Your task to perform on an android device: Open privacy settings Image 0: 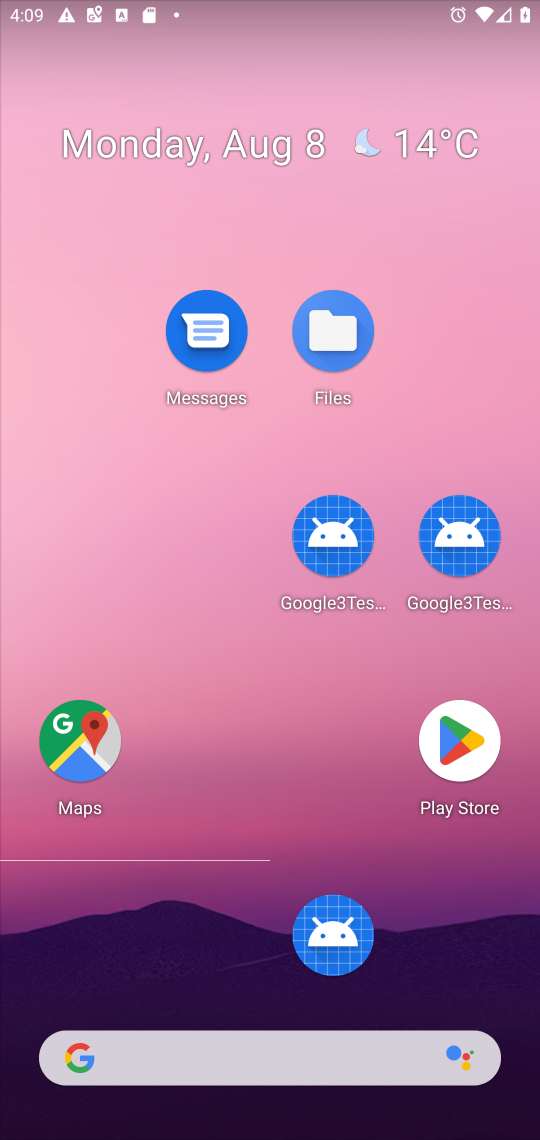
Step 0: drag from (347, 1036) to (426, 201)
Your task to perform on an android device: Open privacy settings Image 1: 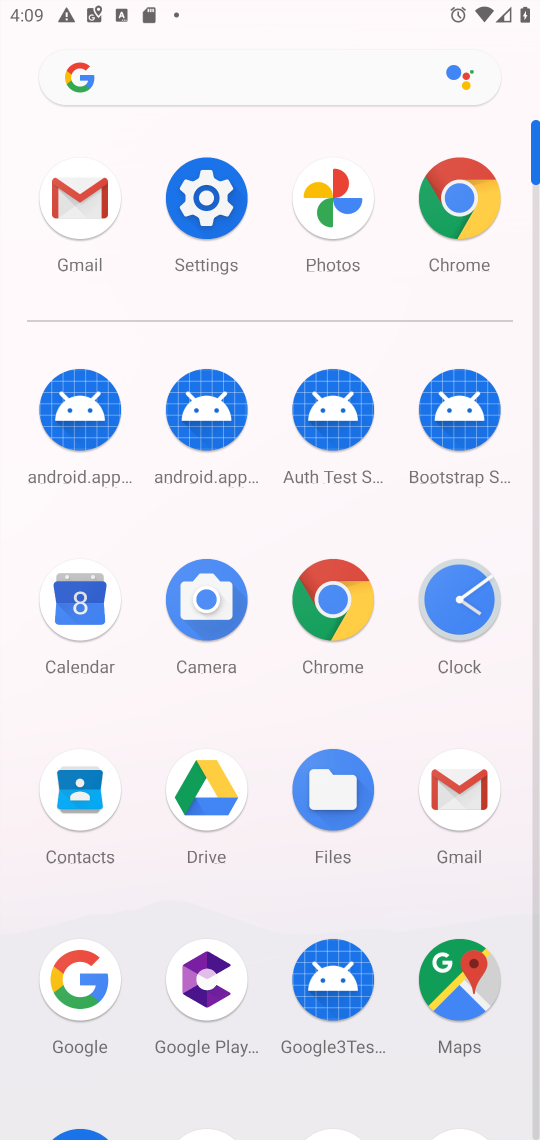
Step 1: click (207, 194)
Your task to perform on an android device: Open privacy settings Image 2: 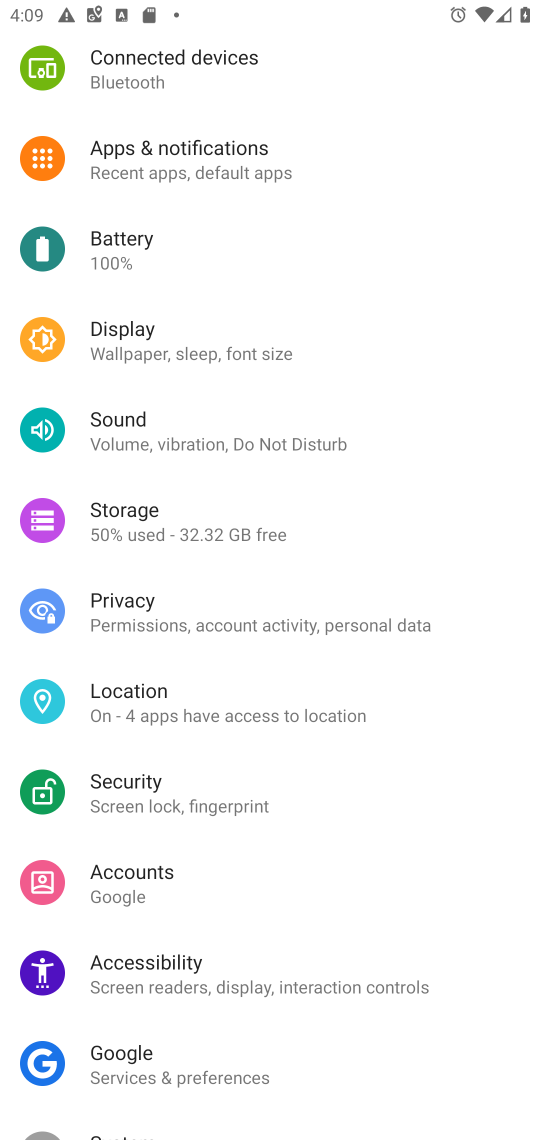
Step 2: click (180, 604)
Your task to perform on an android device: Open privacy settings Image 3: 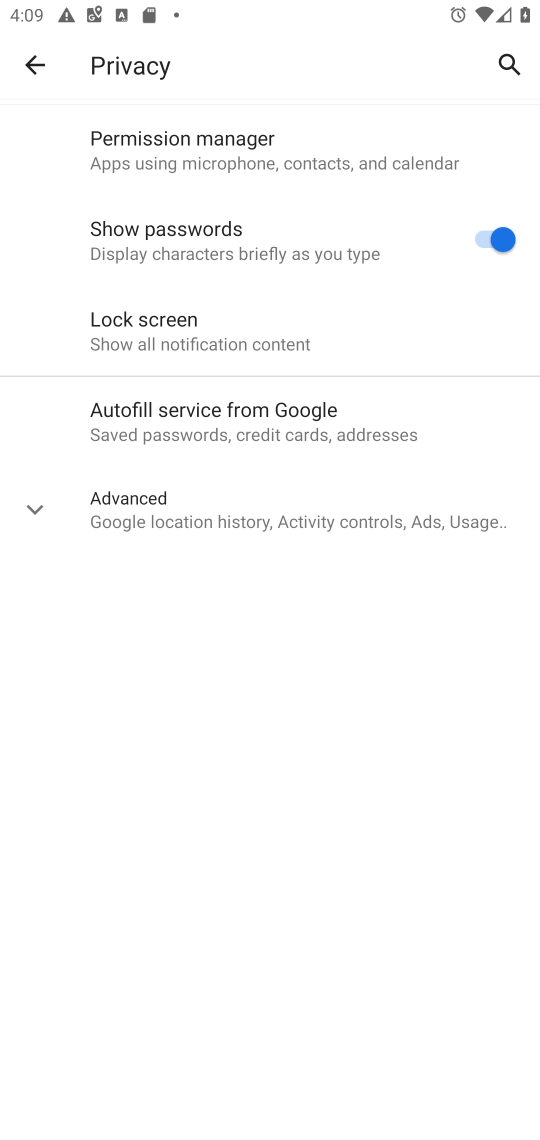
Step 3: task complete